Your task to perform on an android device: check out phone information Image 0: 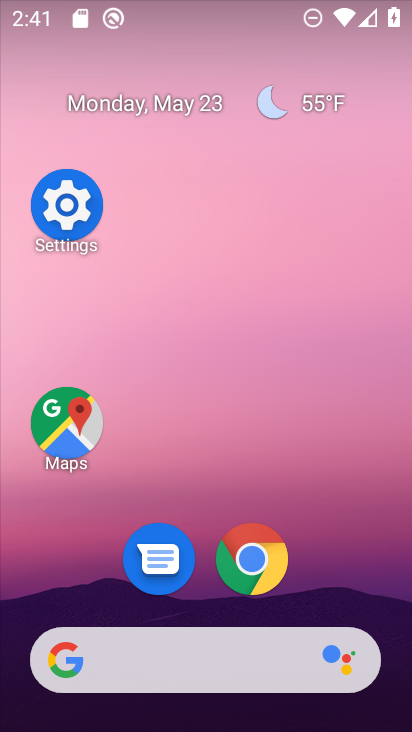
Step 0: click (74, 201)
Your task to perform on an android device: check out phone information Image 1: 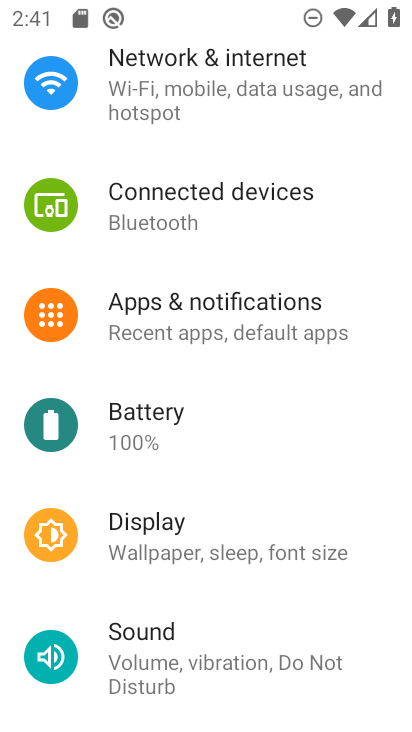
Step 1: drag from (261, 240) to (283, 618)
Your task to perform on an android device: check out phone information Image 2: 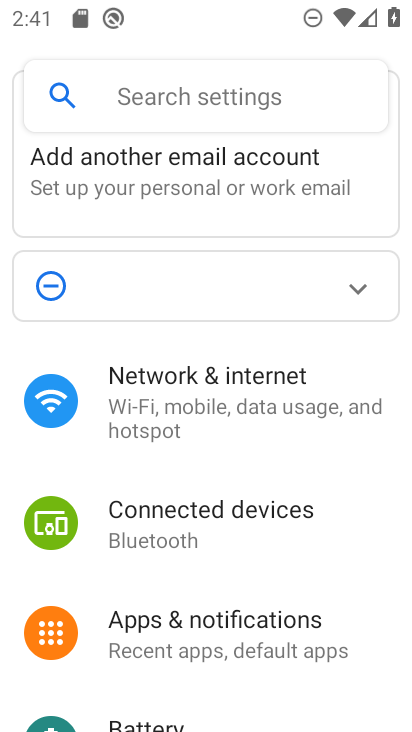
Step 2: drag from (273, 601) to (271, 225)
Your task to perform on an android device: check out phone information Image 3: 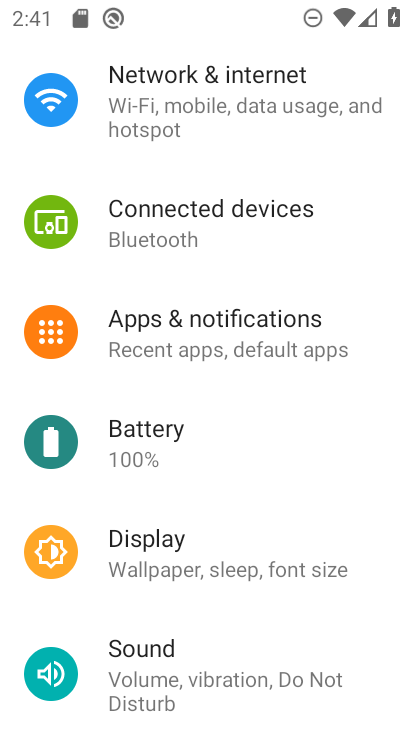
Step 3: drag from (260, 670) to (215, 188)
Your task to perform on an android device: check out phone information Image 4: 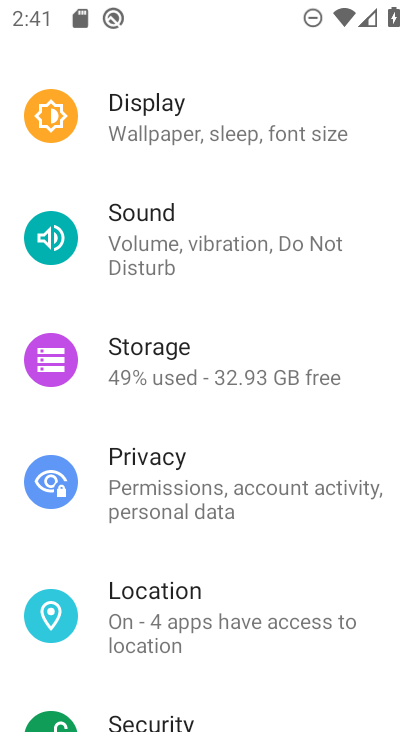
Step 4: drag from (275, 617) to (278, 272)
Your task to perform on an android device: check out phone information Image 5: 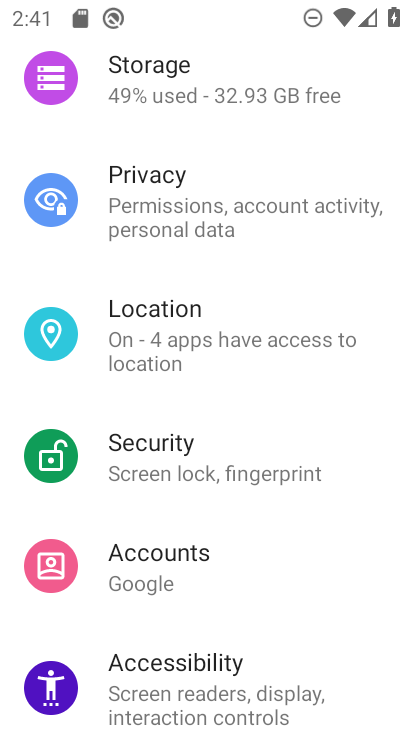
Step 5: drag from (232, 643) to (263, 285)
Your task to perform on an android device: check out phone information Image 6: 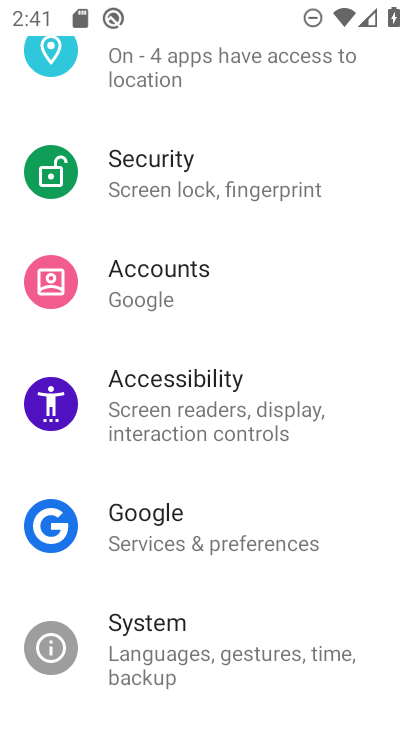
Step 6: drag from (248, 686) to (273, 299)
Your task to perform on an android device: check out phone information Image 7: 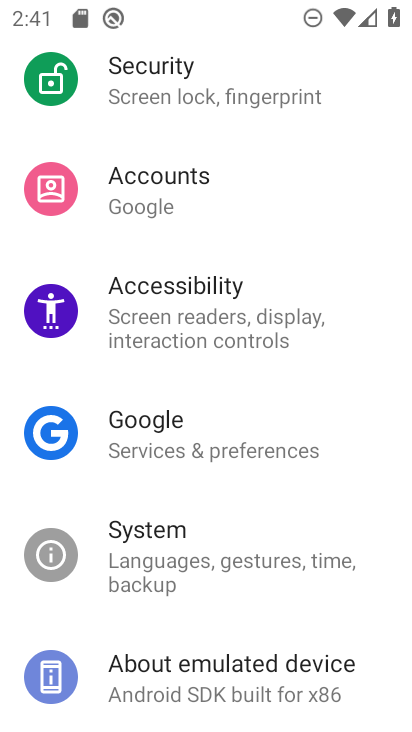
Step 7: click (237, 658)
Your task to perform on an android device: check out phone information Image 8: 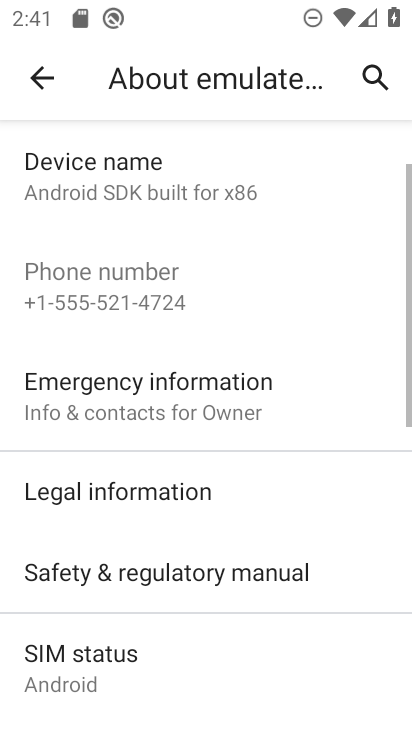
Step 8: drag from (240, 586) to (246, 271)
Your task to perform on an android device: check out phone information Image 9: 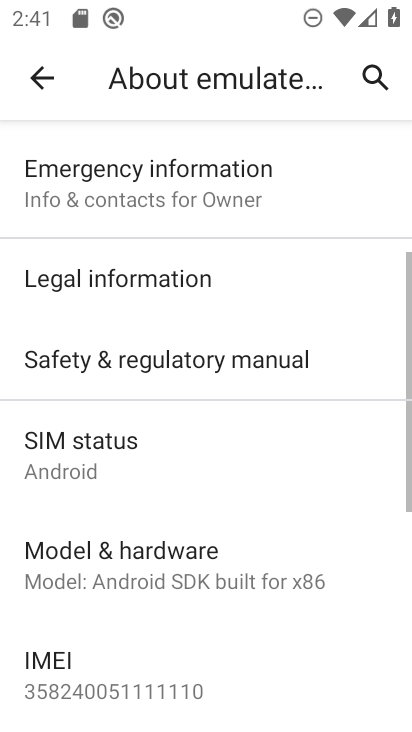
Step 9: click (223, 619)
Your task to perform on an android device: check out phone information Image 10: 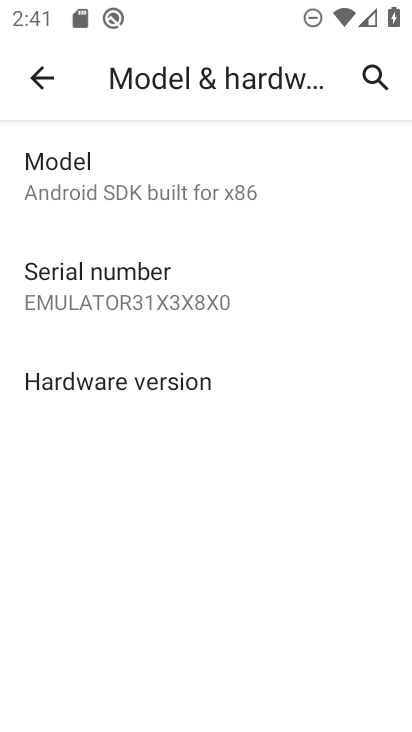
Step 10: task complete